Your task to perform on an android device: change timer sound Image 0: 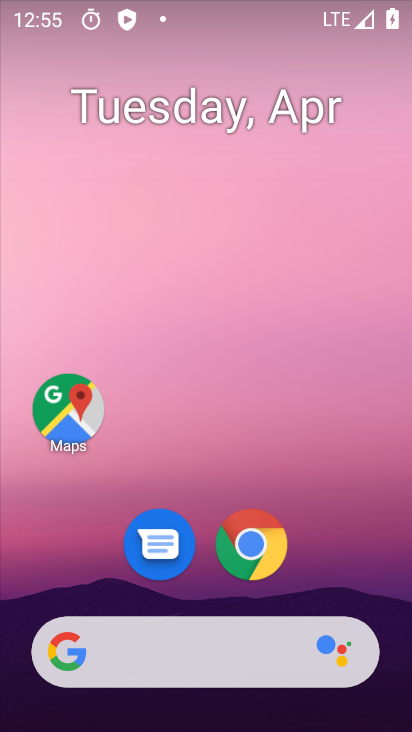
Step 0: drag from (366, 590) to (411, 532)
Your task to perform on an android device: change timer sound Image 1: 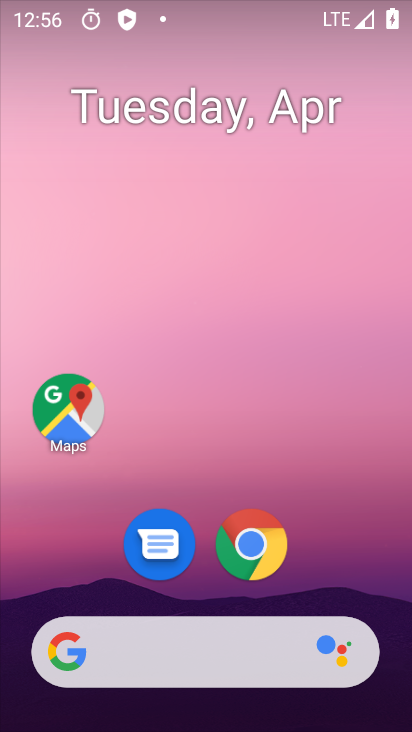
Step 1: drag from (339, 552) to (362, 5)
Your task to perform on an android device: change timer sound Image 2: 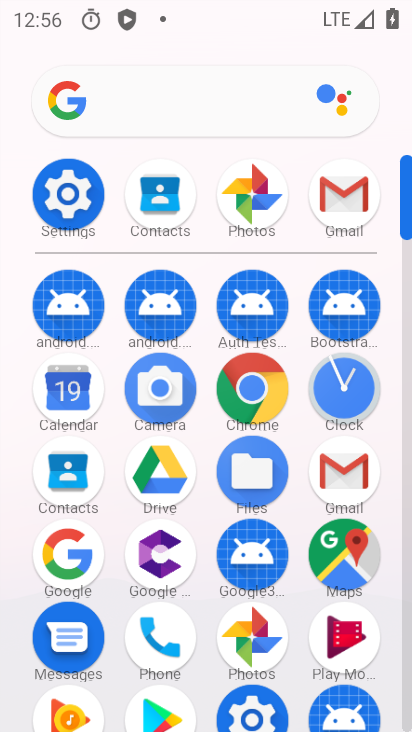
Step 2: click (349, 394)
Your task to perform on an android device: change timer sound Image 3: 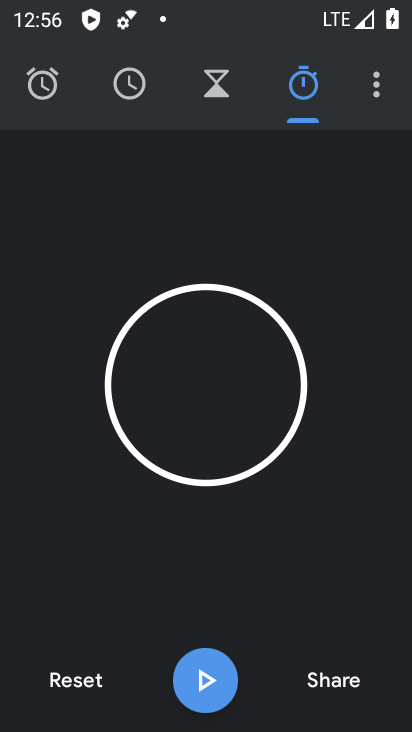
Step 3: click (376, 88)
Your task to perform on an android device: change timer sound Image 4: 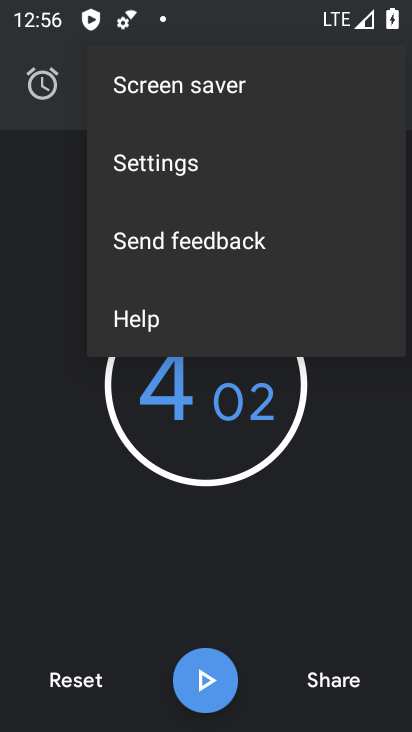
Step 4: click (152, 170)
Your task to perform on an android device: change timer sound Image 5: 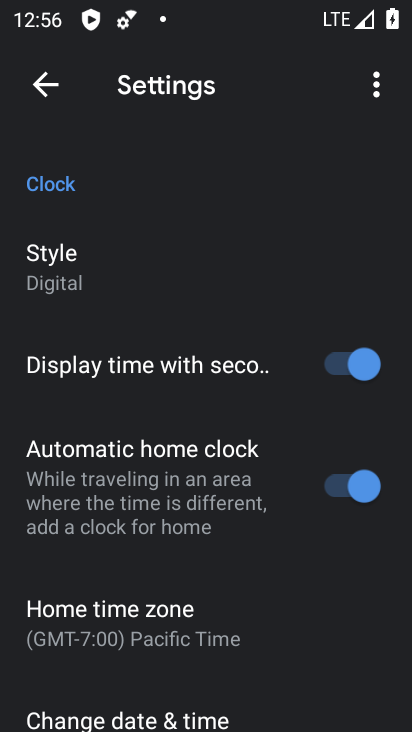
Step 5: drag from (238, 547) to (248, 232)
Your task to perform on an android device: change timer sound Image 6: 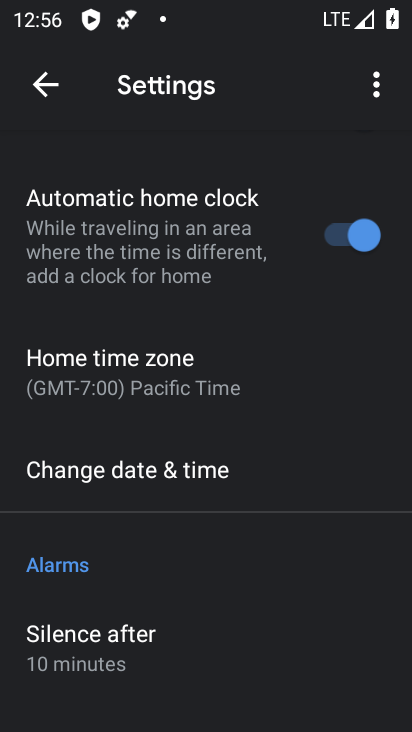
Step 6: drag from (232, 447) to (235, 190)
Your task to perform on an android device: change timer sound Image 7: 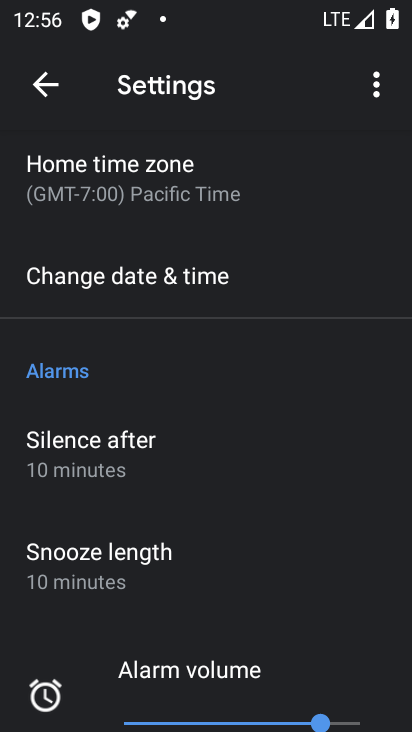
Step 7: drag from (239, 445) to (219, 161)
Your task to perform on an android device: change timer sound Image 8: 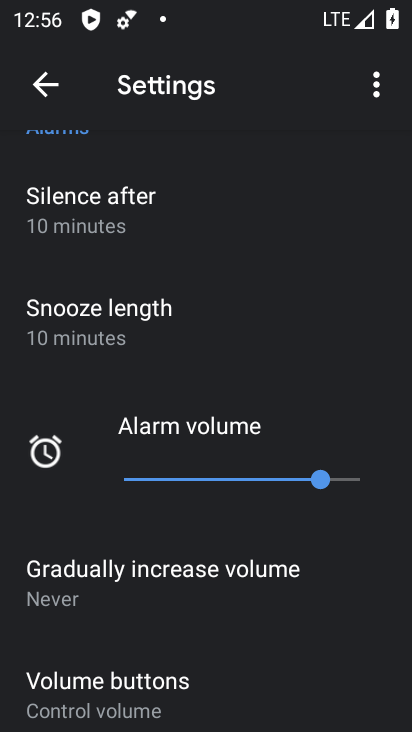
Step 8: drag from (232, 499) to (219, 211)
Your task to perform on an android device: change timer sound Image 9: 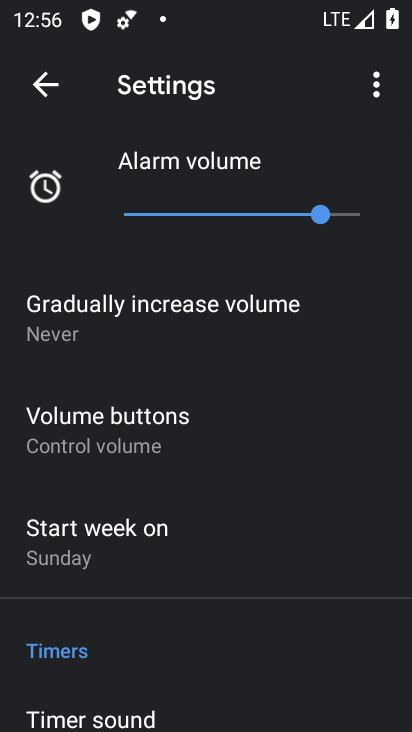
Step 9: drag from (216, 537) to (216, 260)
Your task to perform on an android device: change timer sound Image 10: 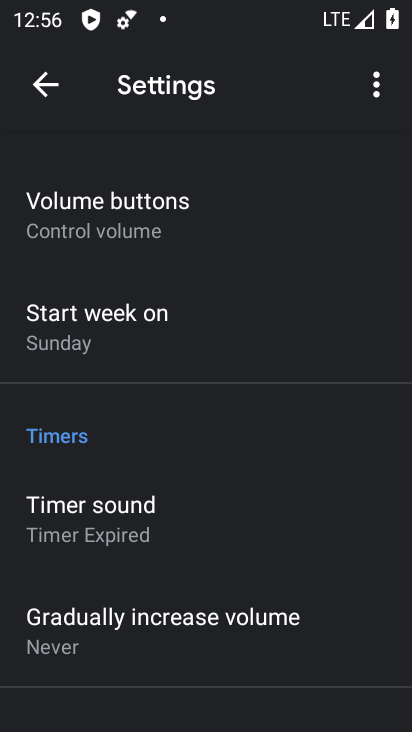
Step 10: click (104, 531)
Your task to perform on an android device: change timer sound Image 11: 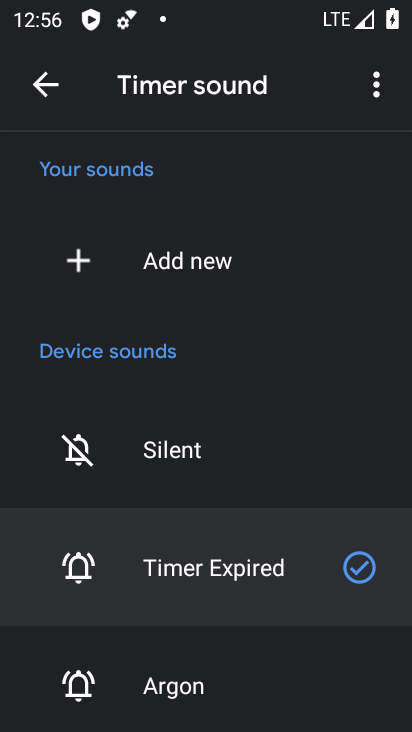
Step 11: drag from (281, 623) to (285, 302)
Your task to perform on an android device: change timer sound Image 12: 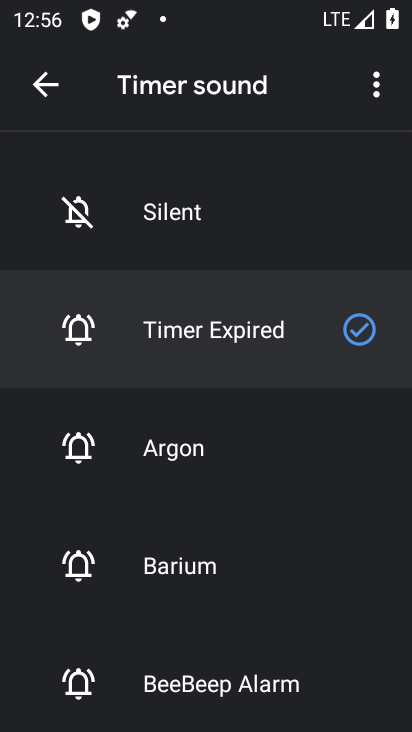
Step 12: click (182, 570)
Your task to perform on an android device: change timer sound Image 13: 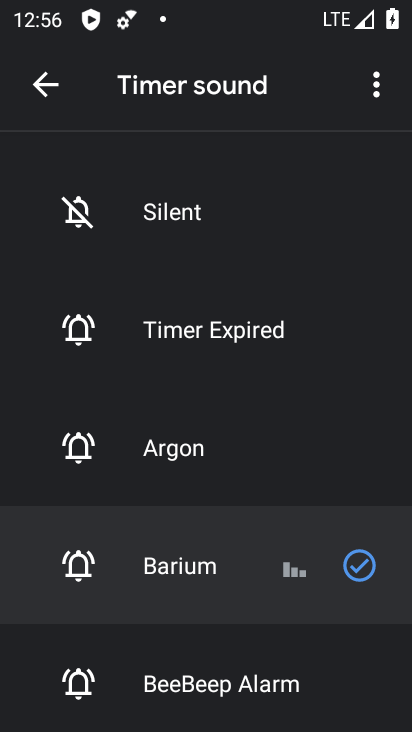
Step 13: task complete